Your task to perform on an android device: What's the weather? Image 0: 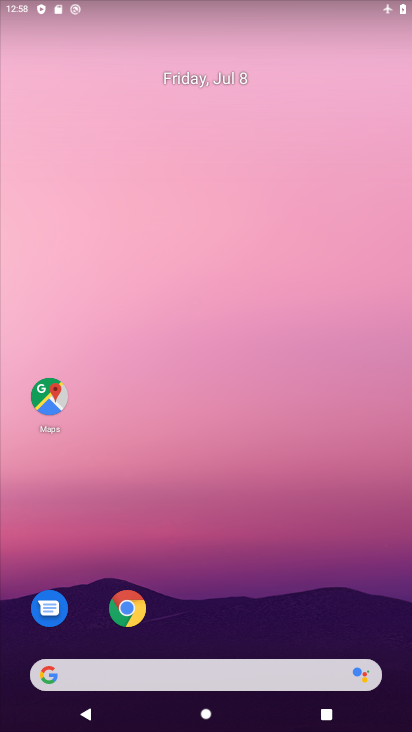
Step 0: drag from (8, 196) to (385, 219)
Your task to perform on an android device: What's the weather? Image 1: 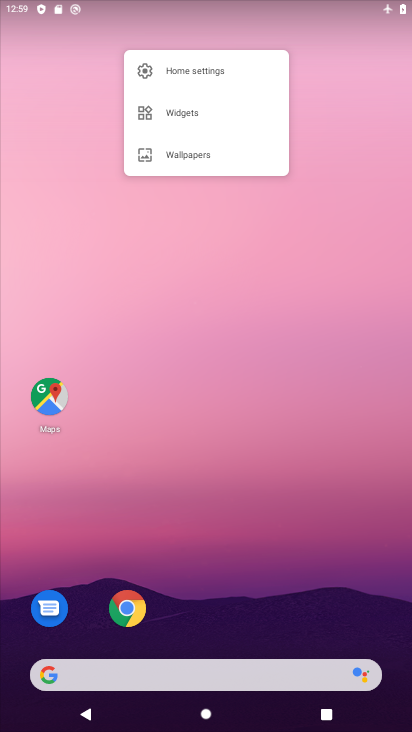
Step 1: drag from (1, 238) to (401, 259)
Your task to perform on an android device: What's the weather? Image 2: 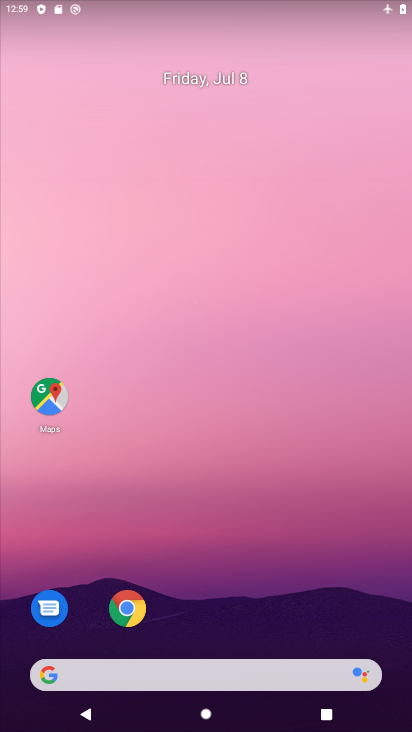
Step 2: drag from (5, 293) to (406, 309)
Your task to perform on an android device: What's the weather? Image 3: 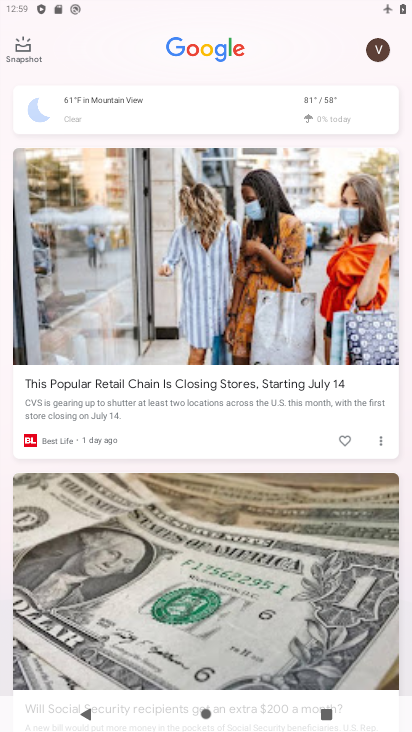
Step 3: click (74, 107)
Your task to perform on an android device: What's the weather? Image 4: 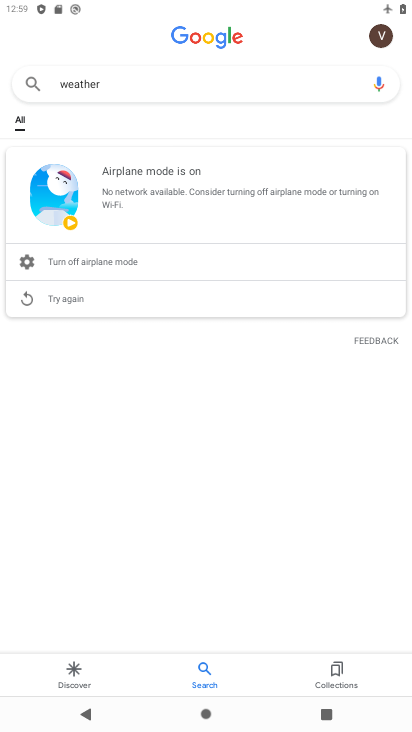
Step 4: click (54, 294)
Your task to perform on an android device: What's the weather? Image 5: 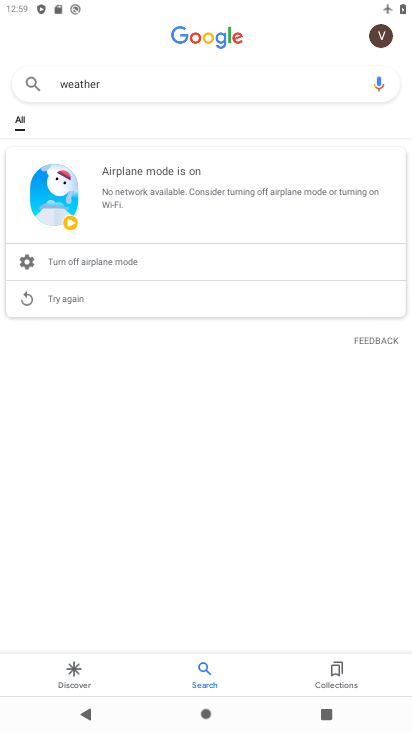
Step 5: click (51, 300)
Your task to perform on an android device: What's the weather? Image 6: 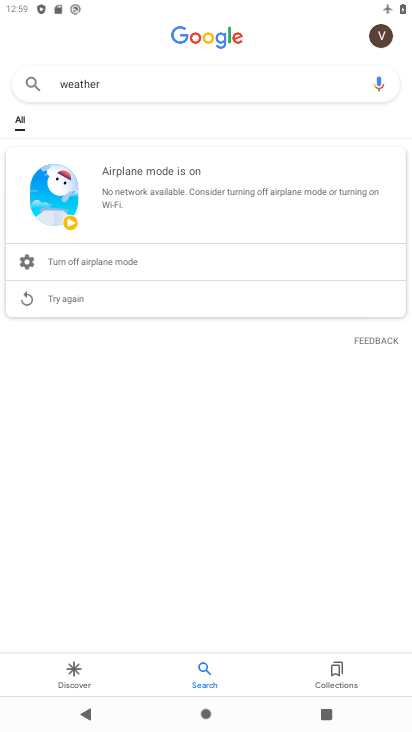
Step 6: task complete